Your task to perform on an android device: turn off data saver in the chrome app Image 0: 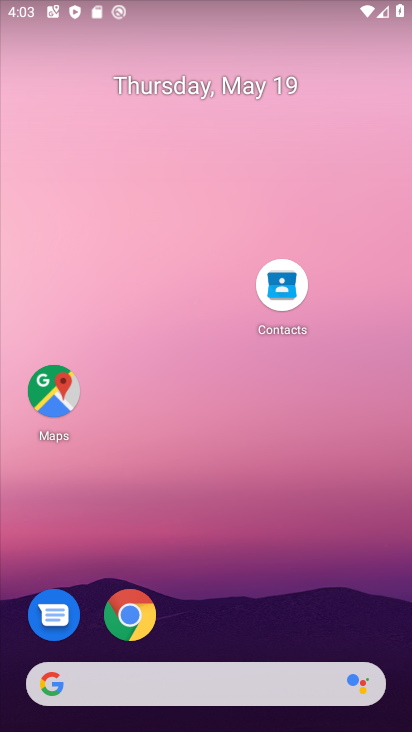
Step 0: drag from (189, 727) to (263, 161)
Your task to perform on an android device: turn off data saver in the chrome app Image 1: 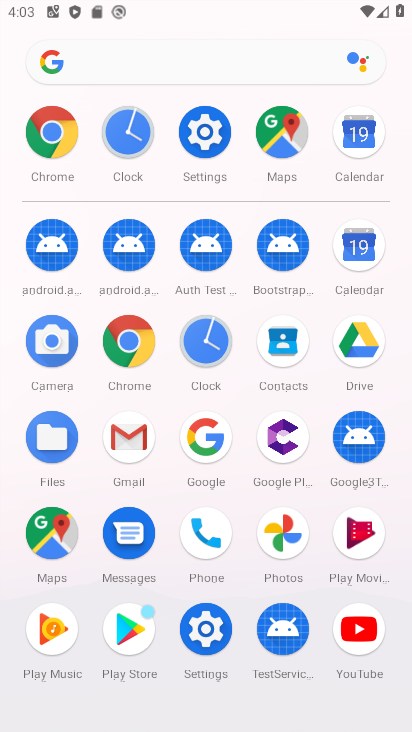
Step 1: click (66, 145)
Your task to perform on an android device: turn off data saver in the chrome app Image 2: 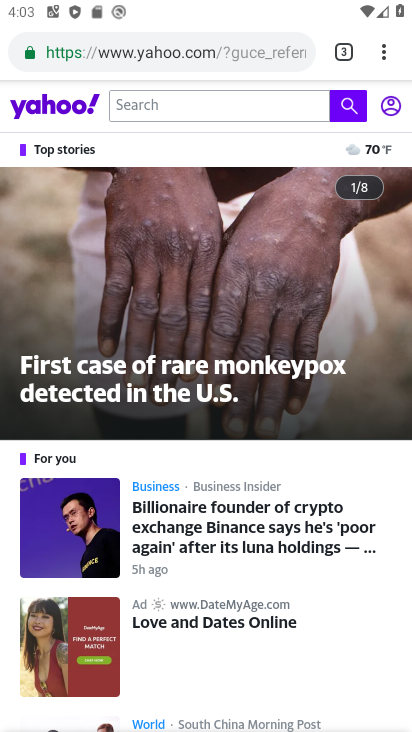
Step 2: click (380, 55)
Your task to perform on an android device: turn off data saver in the chrome app Image 3: 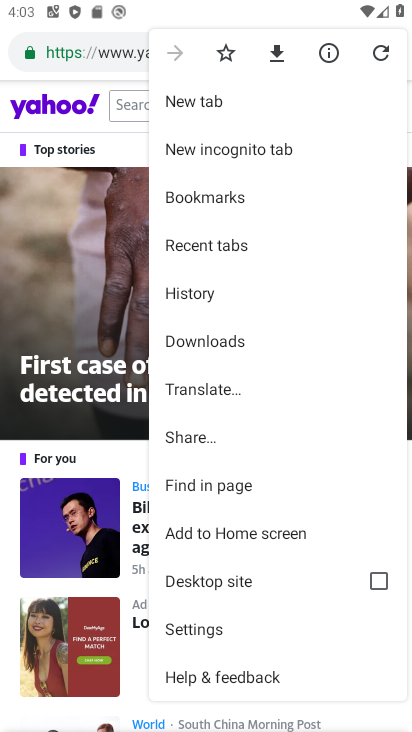
Step 3: click (207, 632)
Your task to perform on an android device: turn off data saver in the chrome app Image 4: 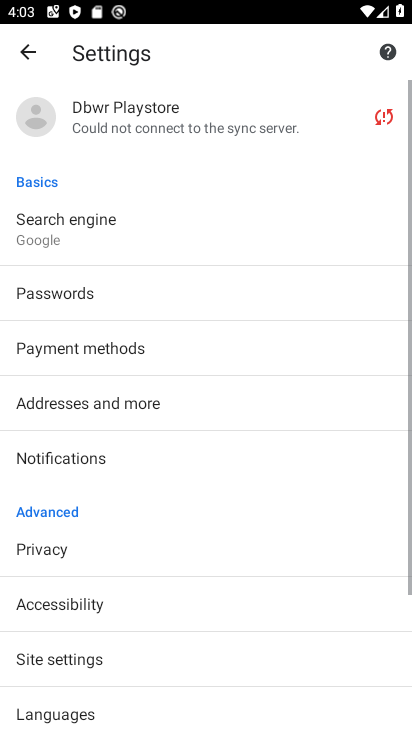
Step 4: drag from (228, 566) to (287, 175)
Your task to perform on an android device: turn off data saver in the chrome app Image 5: 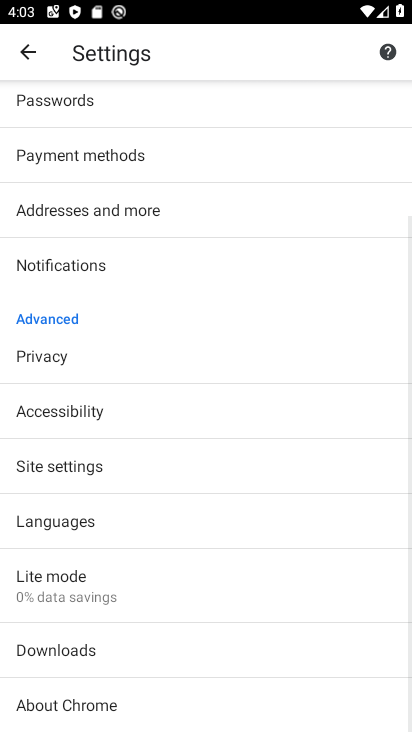
Step 5: drag from (104, 618) to (138, 114)
Your task to perform on an android device: turn off data saver in the chrome app Image 6: 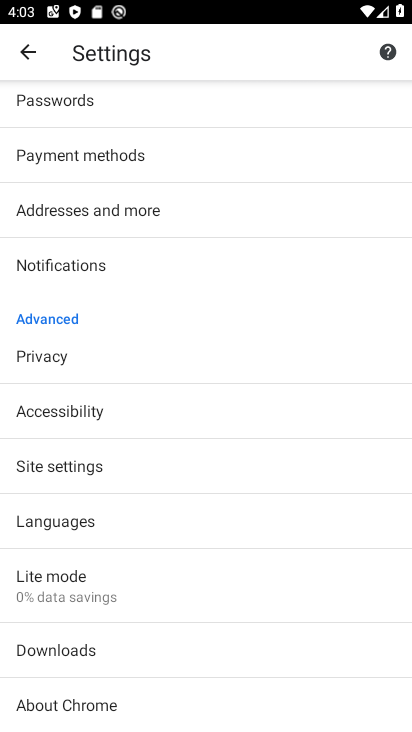
Step 6: click (154, 591)
Your task to perform on an android device: turn off data saver in the chrome app Image 7: 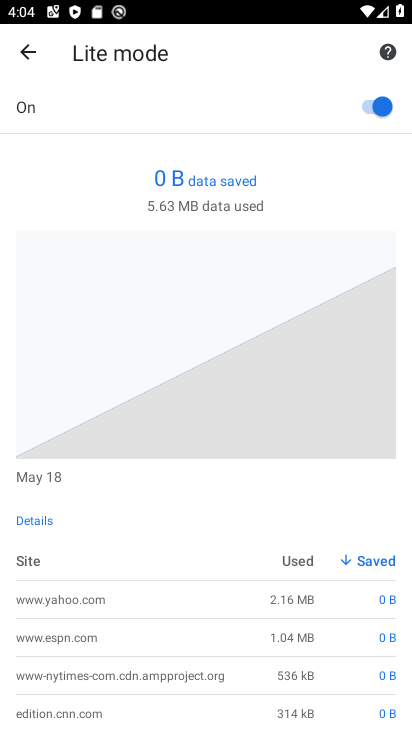
Step 7: click (371, 108)
Your task to perform on an android device: turn off data saver in the chrome app Image 8: 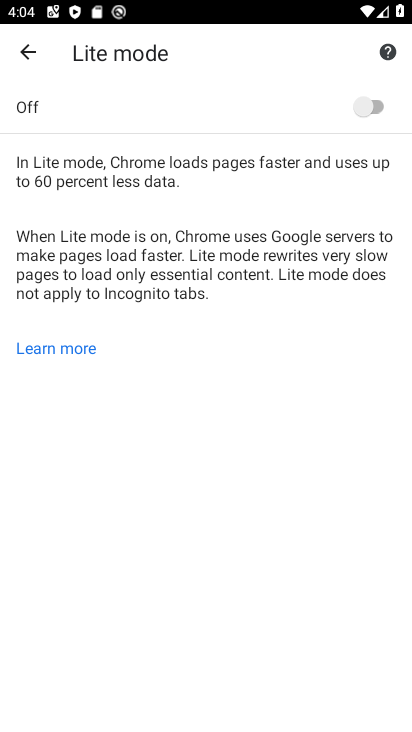
Step 8: task complete